Your task to perform on an android device: see tabs open on other devices in the chrome app Image 0: 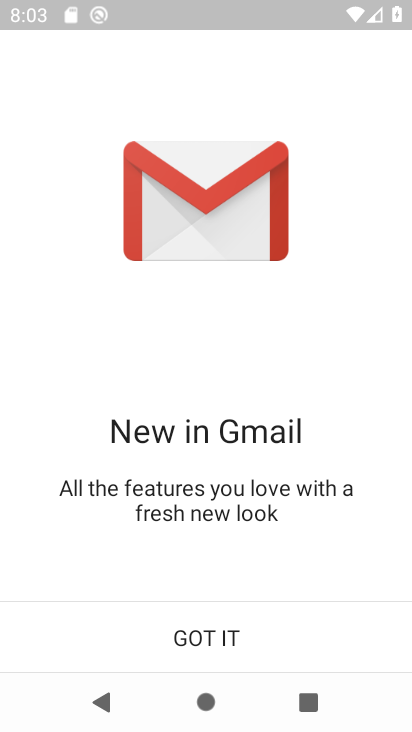
Step 0: press home button
Your task to perform on an android device: see tabs open on other devices in the chrome app Image 1: 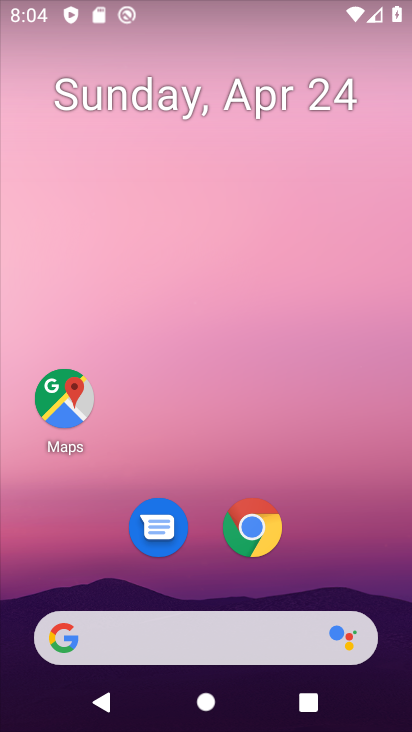
Step 1: click (255, 537)
Your task to perform on an android device: see tabs open on other devices in the chrome app Image 2: 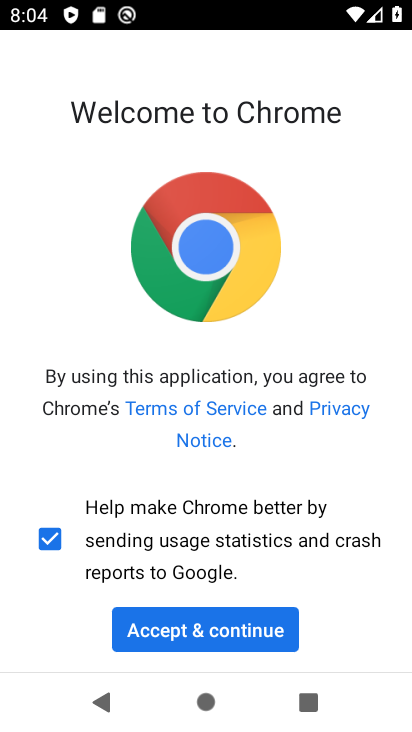
Step 2: click (270, 620)
Your task to perform on an android device: see tabs open on other devices in the chrome app Image 3: 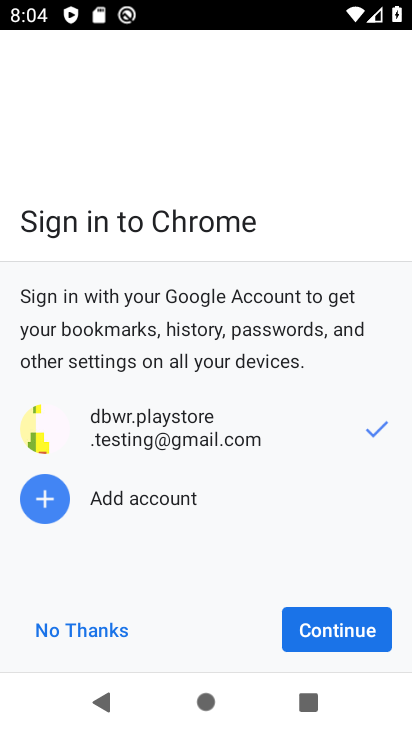
Step 3: click (329, 622)
Your task to perform on an android device: see tabs open on other devices in the chrome app Image 4: 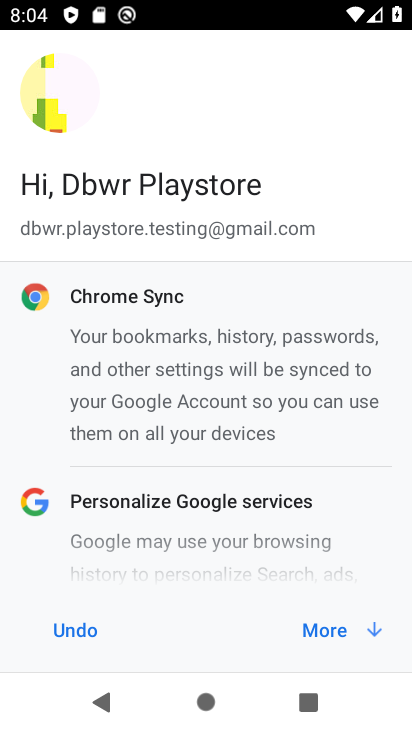
Step 4: click (336, 629)
Your task to perform on an android device: see tabs open on other devices in the chrome app Image 5: 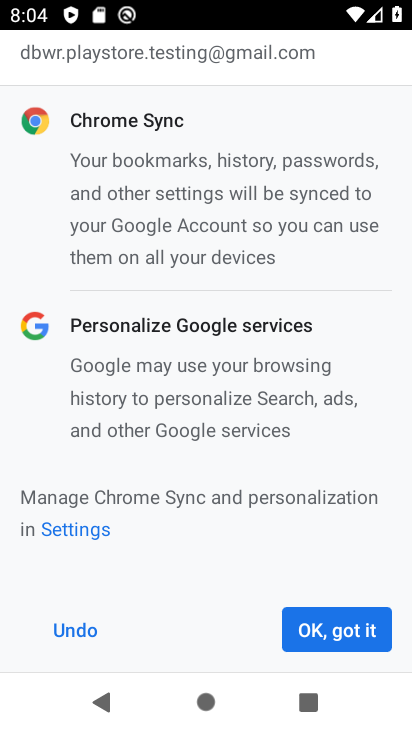
Step 5: click (336, 629)
Your task to perform on an android device: see tabs open on other devices in the chrome app Image 6: 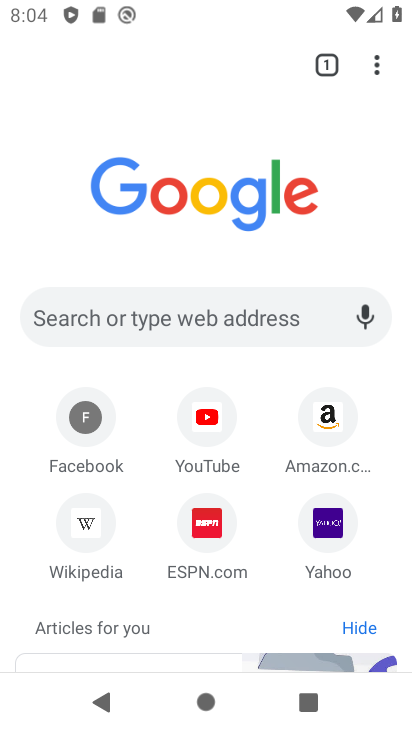
Step 6: click (383, 59)
Your task to perform on an android device: see tabs open on other devices in the chrome app Image 7: 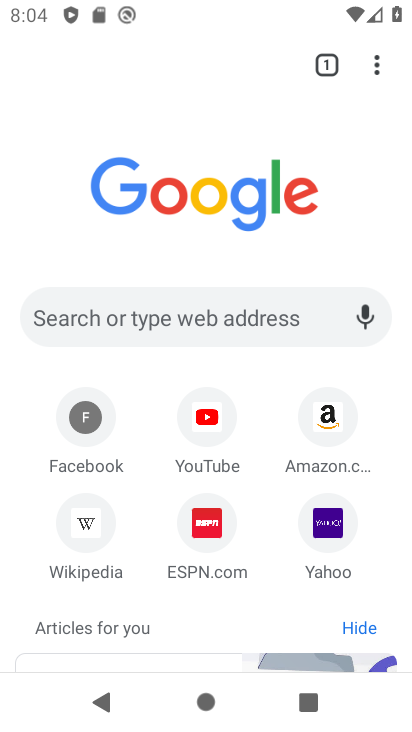
Step 7: click (374, 66)
Your task to perform on an android device: see tabs open on other devices in the chrome app Image 8: 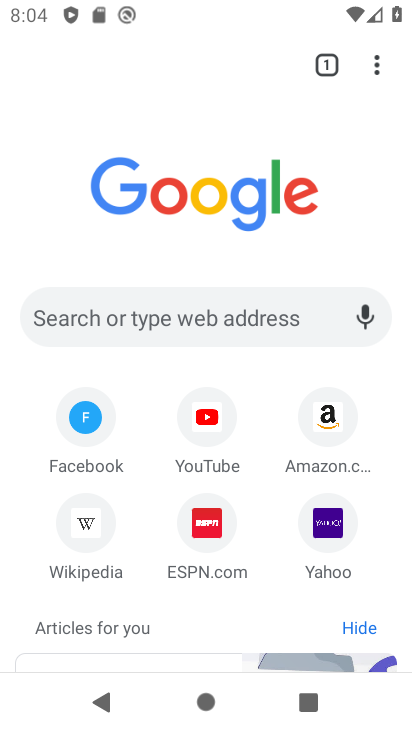
Step 8: click (374, 66)
Your task to perform on an android device: see tabs open on other devices in the chrome app Image 9: 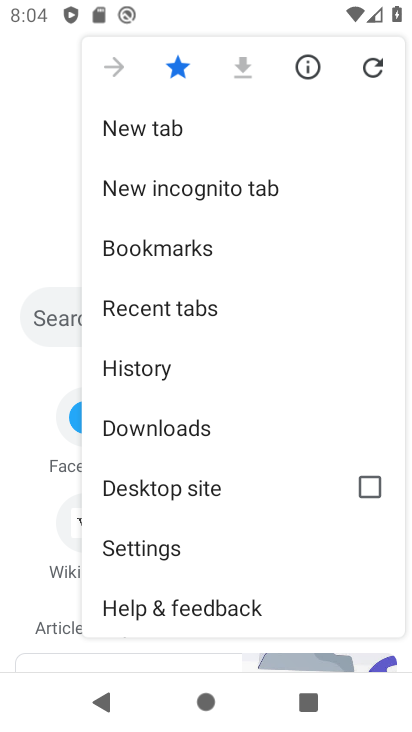
Step 9: click (147, 297)
Your task to perform on an android device: see tabs open on other devices in the chrome app Image 10: 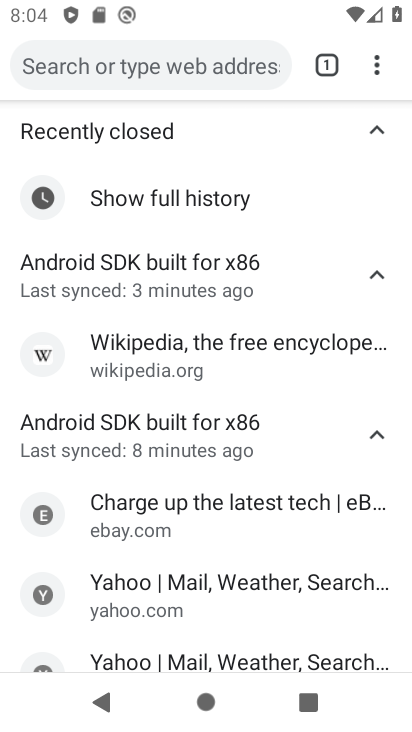
Step 10: task complete